Your task to perform on an android device: Search for Mexican restaurants on Maps Image 0: 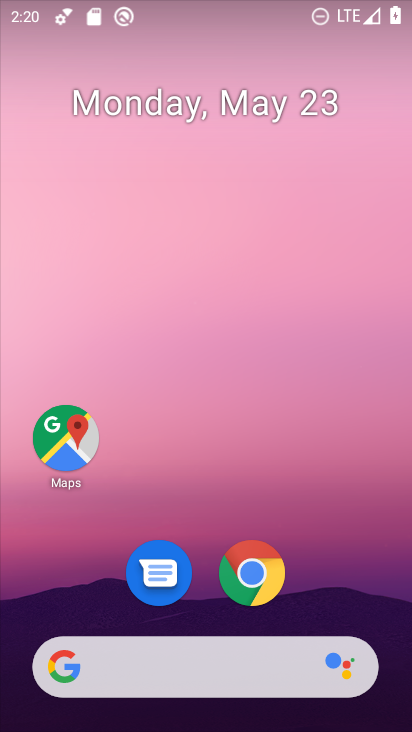
Step 0: click (51, 431)
Your task to perform on an android device: Search for Mexican restaurants on Maps Image 1: 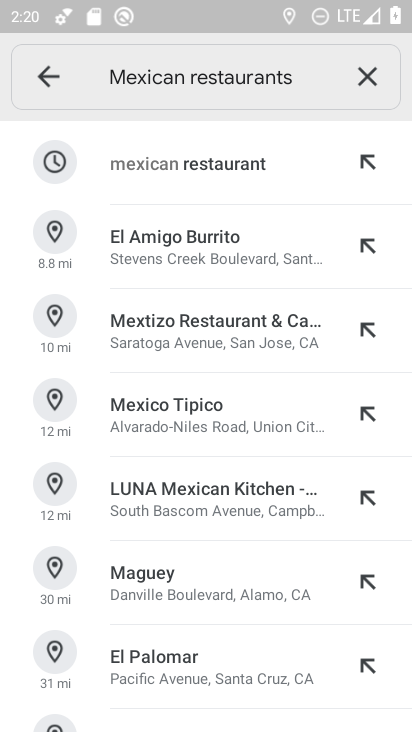
Step 1: press enter
Your task to perform on an android device: Search for Mexican restaurants on Maps Image 2: 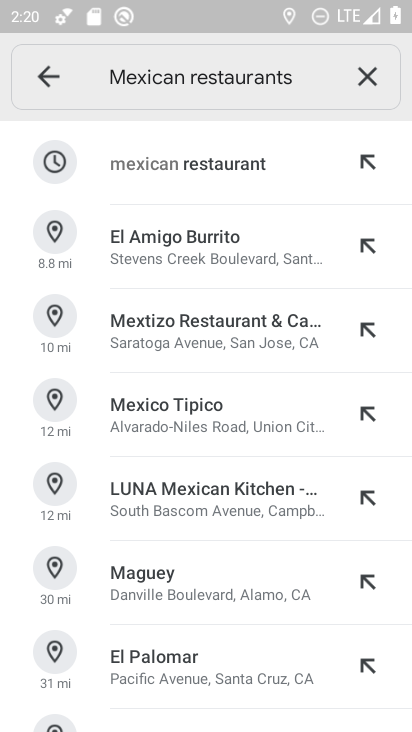
Step 2: click (300, 57)
Your task to perform on an android device: Search for Mexican restaurants on Maps Image 3: 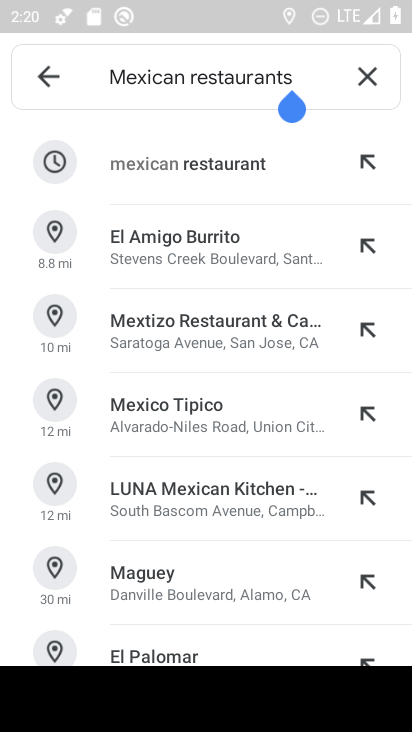
Step 3: press enter
Your task to perform on an android device: Search for Mexican restaurants on Maps Image 4: 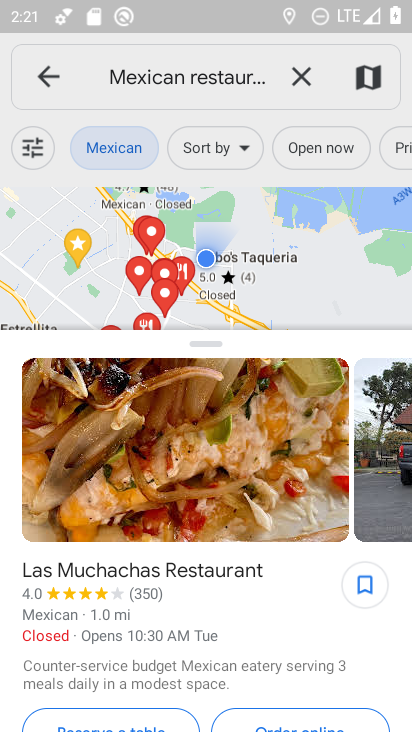
Step 4: task complete